Your task to perform on an android device: Open Google Chrome and open the bookmarks view Image 0: 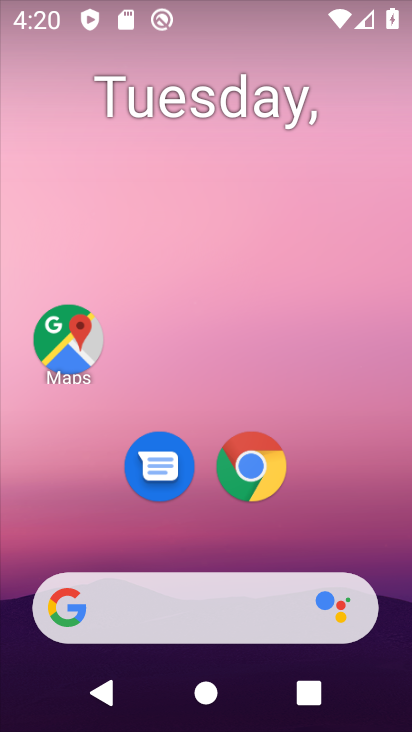
Step 0: click (271, 480)
Your task to perform on an android device: Open Google Chrome and open the bookmarks view Image 1: 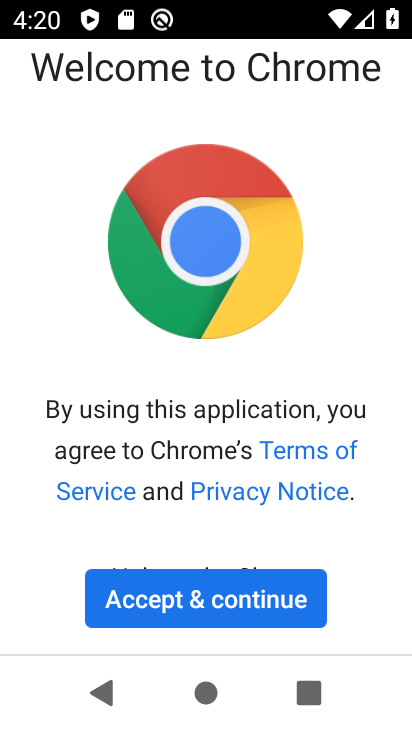
Step 1: click (248, 588)
Your task to perform on an android device: Open Google Chrome and open the bookmarks view Image 2: 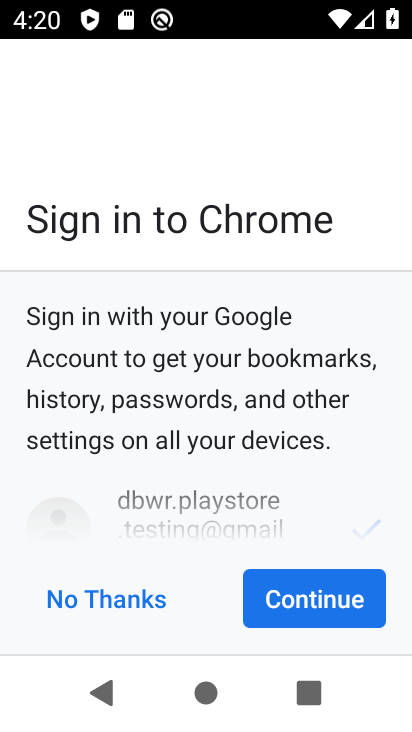
Step 2: click (320, 609)
Your task to perform on an android device: Open Google Chrome and open the bookmarks view Image 3: 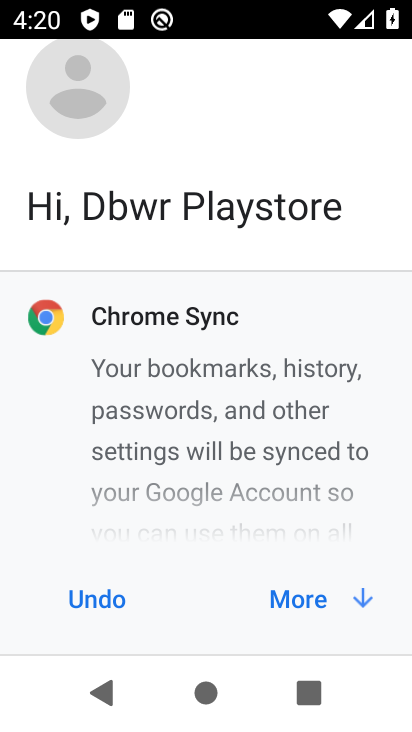
Step 3: click (302, 606)
Your task to perform on an android device: Open Google Chrome and open the bookmarks view Image 4: 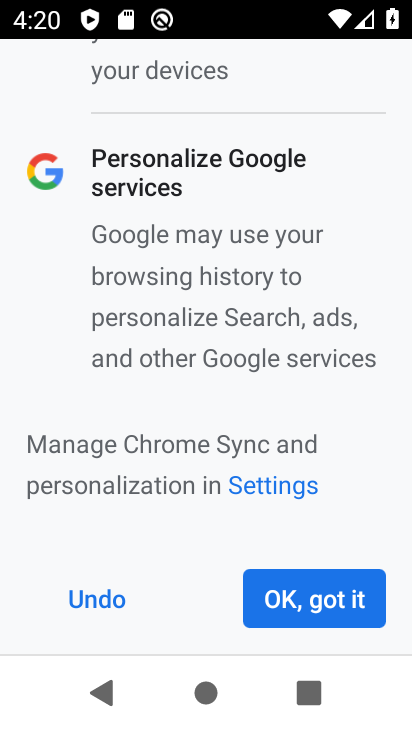
Step 4: click (285, 612)
Your task to perform on an android device: Open Google Chrome and open the bookmarks view Image 5: 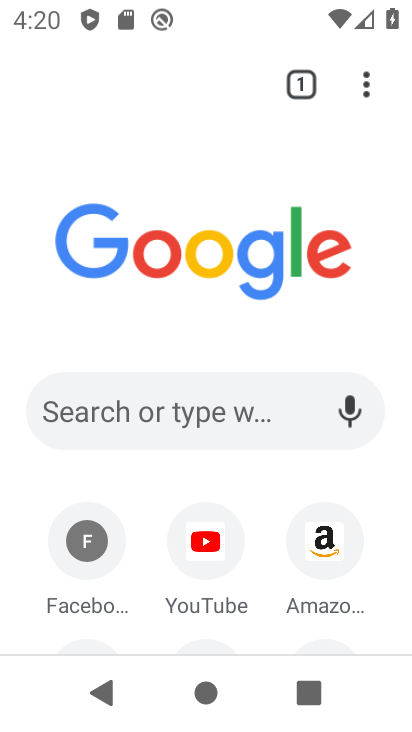
Step 5: task complete